Your task to perform on an android device: open chrome privacy settings Image 0: 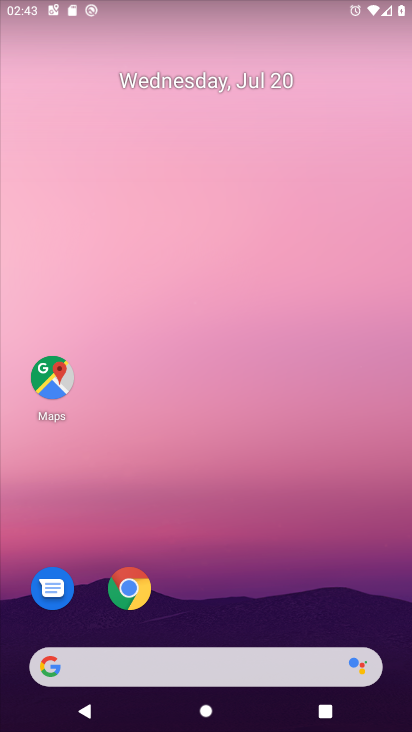
Step 0: drag from (168, 559) to (210, 186)
Your task to perform on an android device: open chrome privacy settings Image 1: 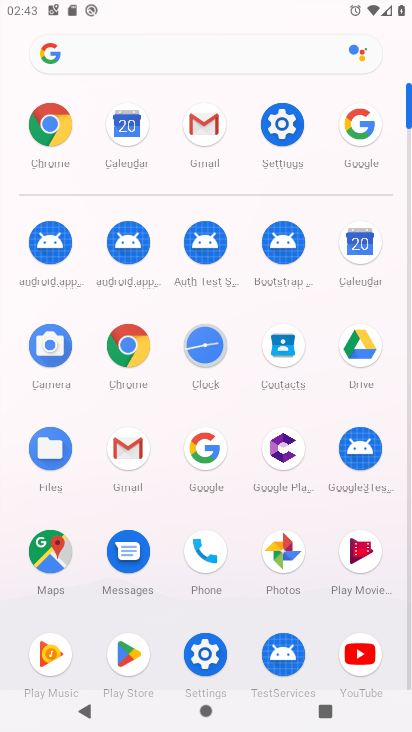
Step 1: click (59, 113)
Your task to perform on an android device: open chrome privacy settings Image 2: 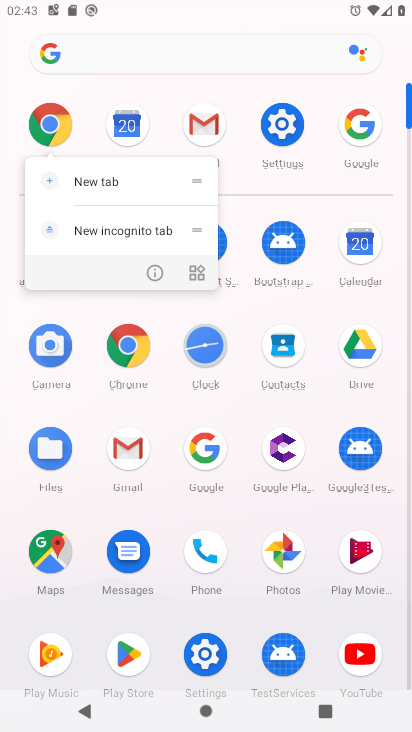
Step 2: click (56, 126)
Your task to perform on an android device: open chrome privacy settings Image 3: 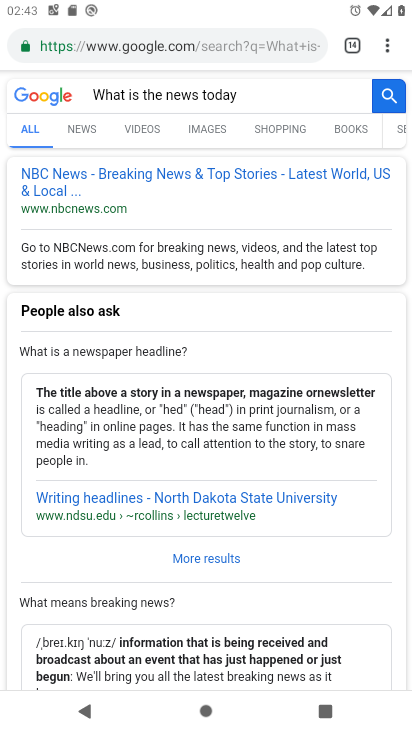
Step 3: click (396, 45)
Your task to perform on an android device: open chrome privacy settings Image 4: 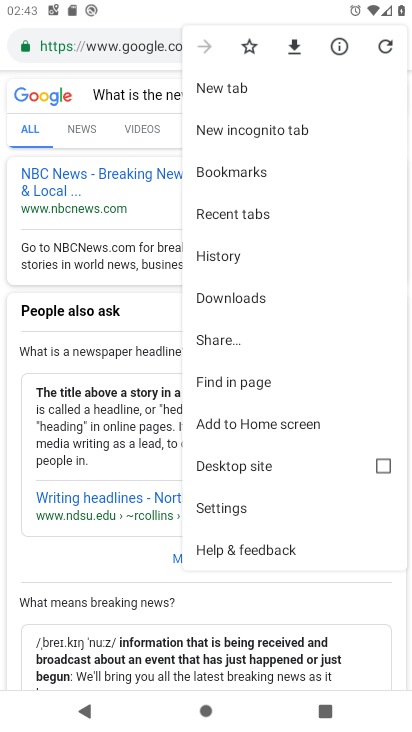
Step 4: click (232, 504)
Your task to perform on an android device: open chrome privacy settings Image 5: 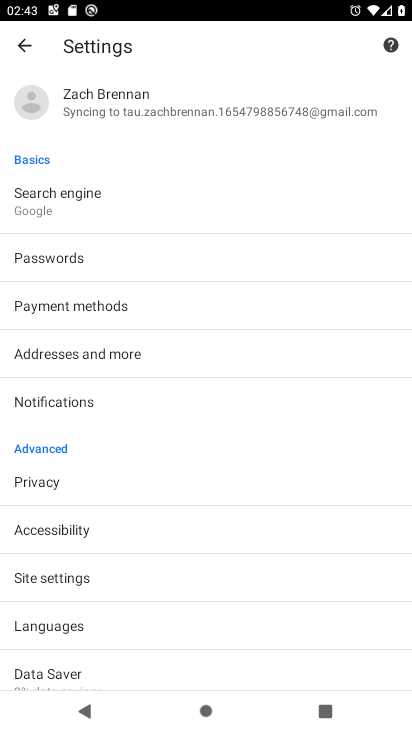
Step 5: click (106, 479)
Your task to perform on an android device: open chrome privacy settings Image 6: 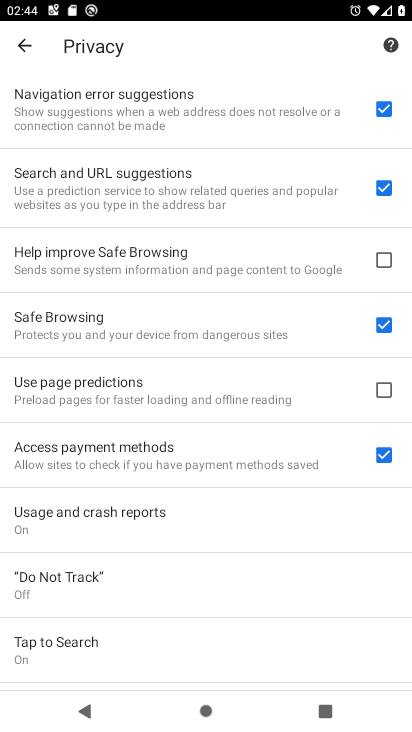
Step 6: task complete